Your task to perform on an android device: Open sound settings Image 0: 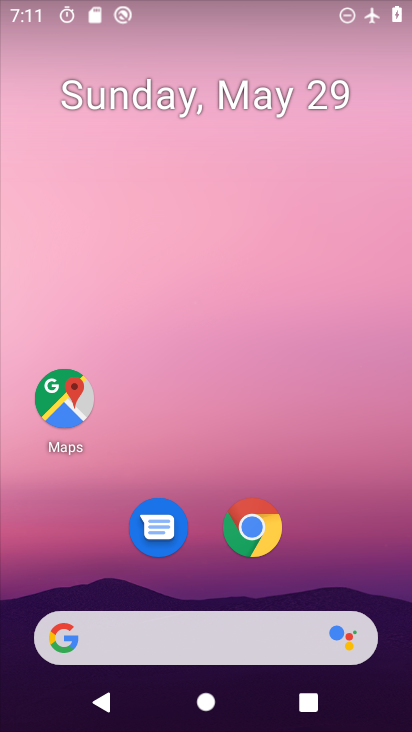
Step 0: drag from (394, 645) to (279, 30)
Your task to perform on an android device: Open sound settings Image 1: 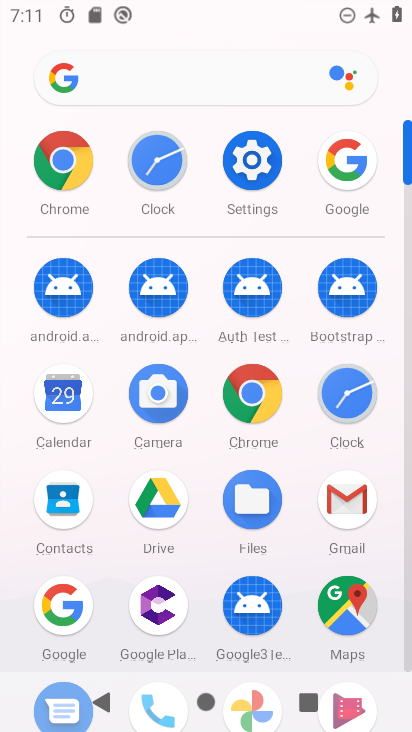
Step 1: click (242, 178)
Your task to perform on an android device: Open sound settings Image 2: 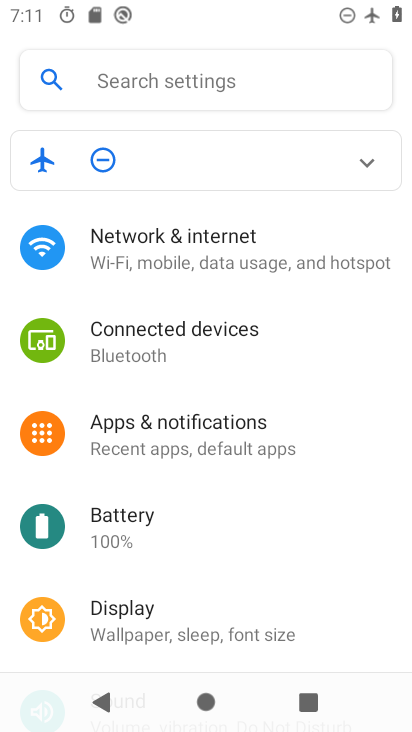
Step 2: drag from (174, 586) to (221, 79)
Your task to perform on an android device: Open sound settings Image 3: 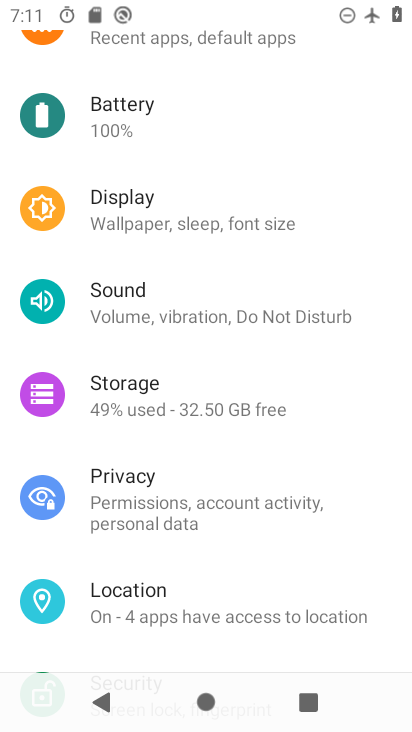
Step 3: click (158, 298)
Your task to perform on an android device: Open sound settings Image 4: 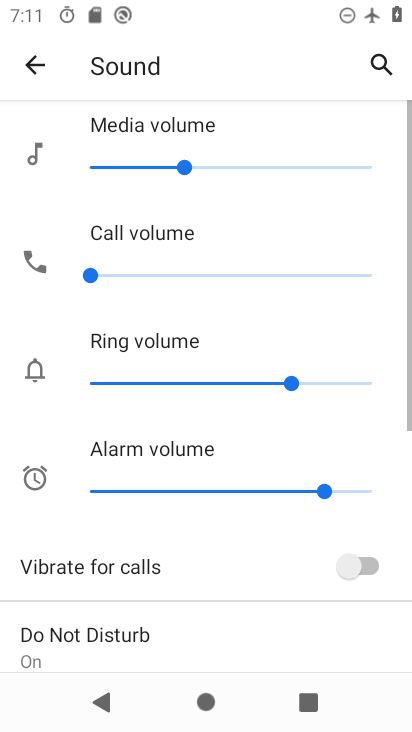
Step 4: task complete